Your task to perform on an android device: turn pop-ups off in chrome Image 0: 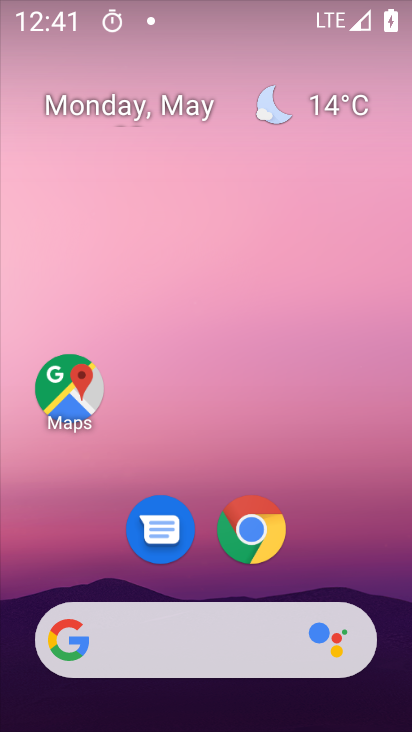
Step 0: drag from (384, 573) to (364, 258)
Your task to perform on an android device: turn pop-ups off in chrome Image 1: 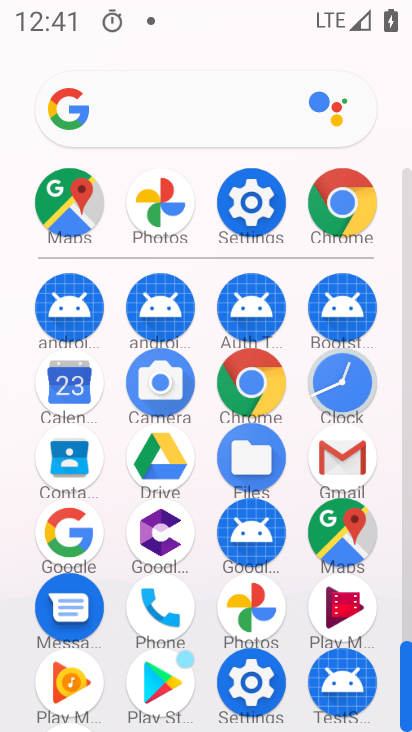
Step 1: click (260, 398)
Your task to perform on an android device: turn pop-ups off in chrome Image 2: 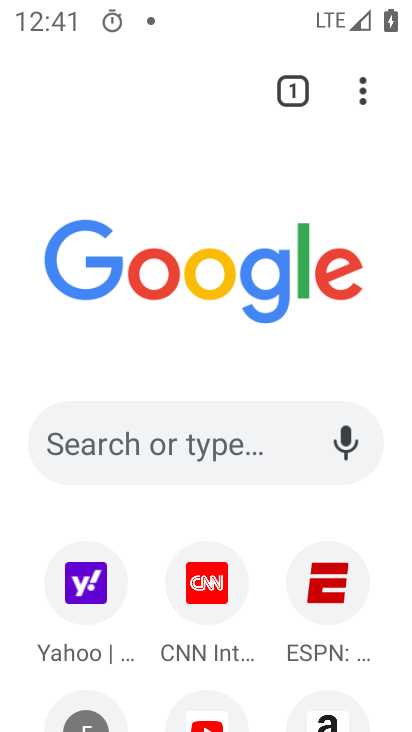
Step 2: click (365, 102)
Your task to perform on an android device: turn pop-ups off in chrome Image 3: 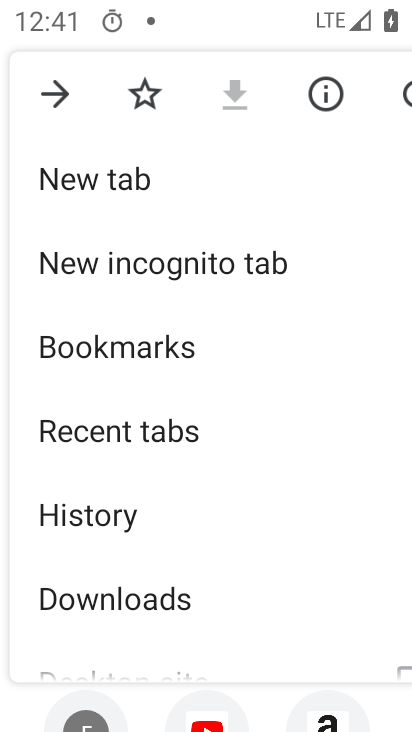
Step 3: drag from (271, 671) to (259, 516)
Your task to perform on an android device: turn pop-ups off in chrome Image 4: 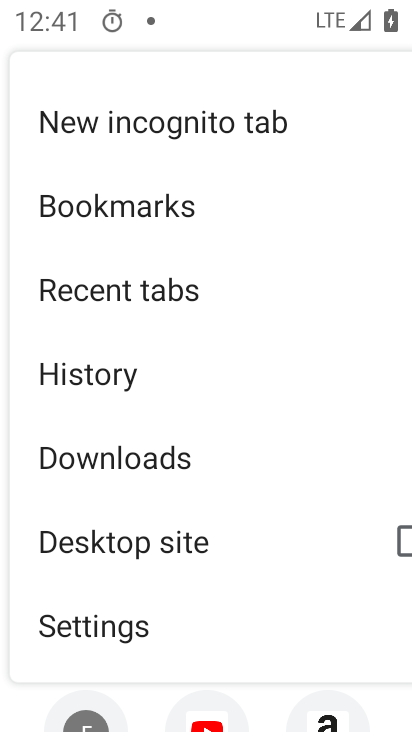
Step 4: drag from (260, 661) to (264, 539)
Your task to perform on an android device: turn pop-ups off in chrome Image 5: 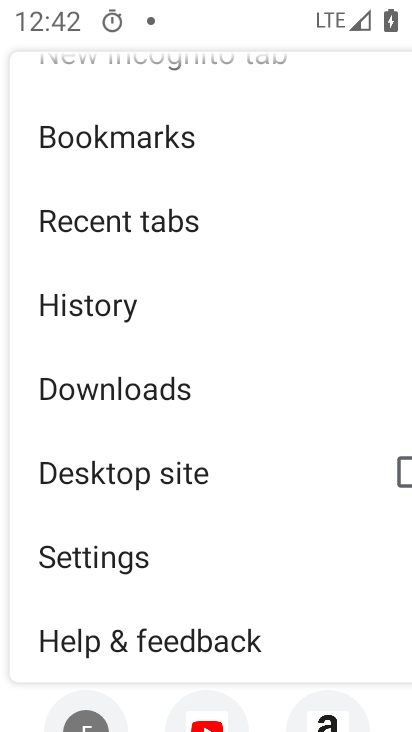
Step 5: click (128, 587)
Your task to perform on an android device: turn pop-ups off in chrome Image 6: 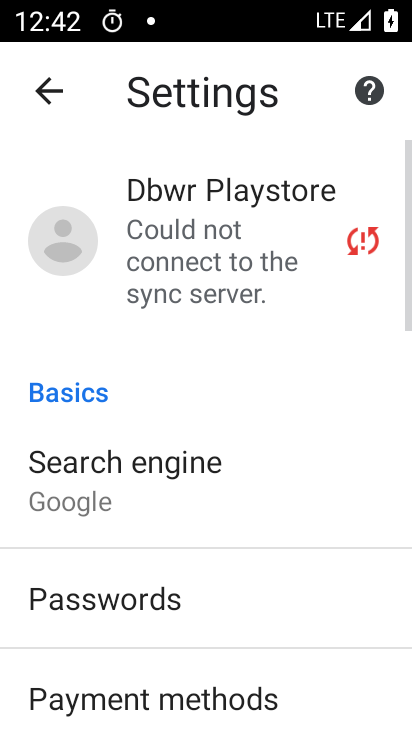
Step 6: drag from (323, 607) to (322, 532)
Your task to perform on an android device: turn pop-ups off in chrome Image 7: 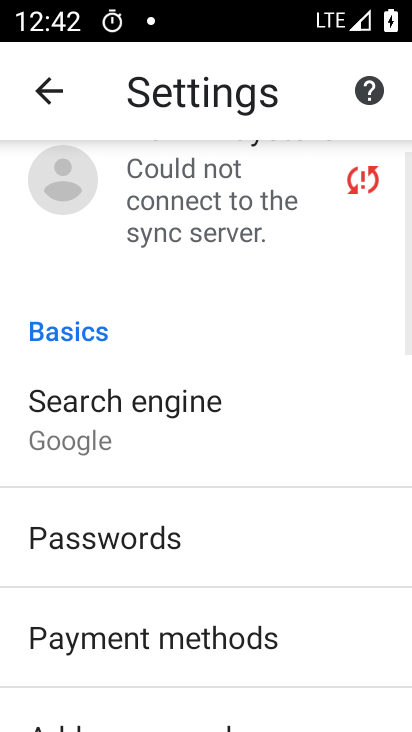
Step 7: drag from (330, 625) to (332, 545)
Your task to perform on an android device: turn pop-ups off in chrome Image 8: 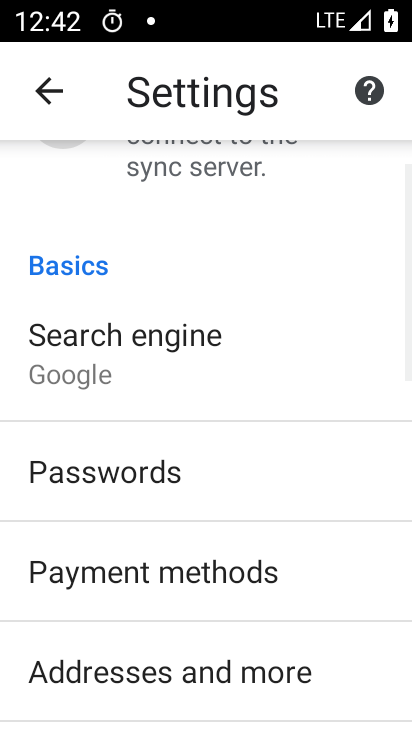
Step 8: drag from (339, 655) to (334, 566)
Your task to perform on an android device: turn pop-ups off in chrome Image 9: 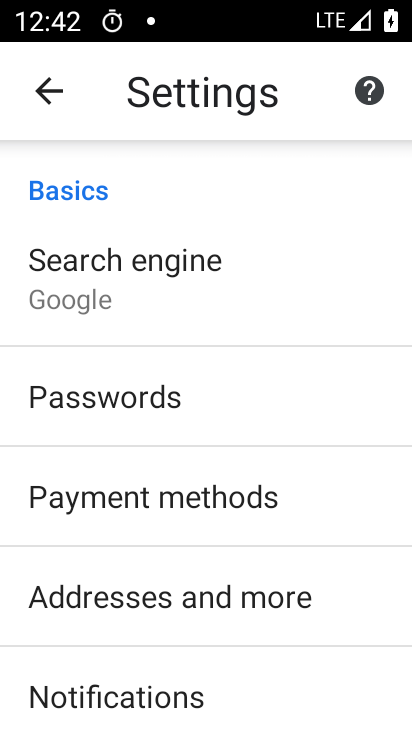
Step 9: drag from (330, 676) to (337, 594)
Your task to perform on an android device: turn pop-ups off in chrome Image 10: 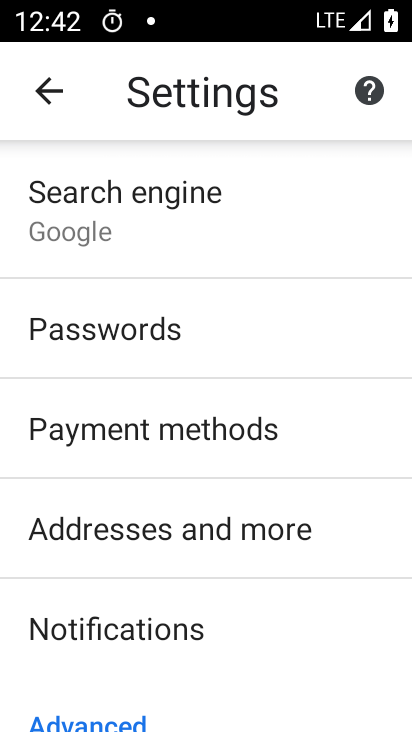
Step 10: drag from (336, 685) to (331, 605)
Your task to perform on an android device: turn pop-ups off in chrome Image 11: 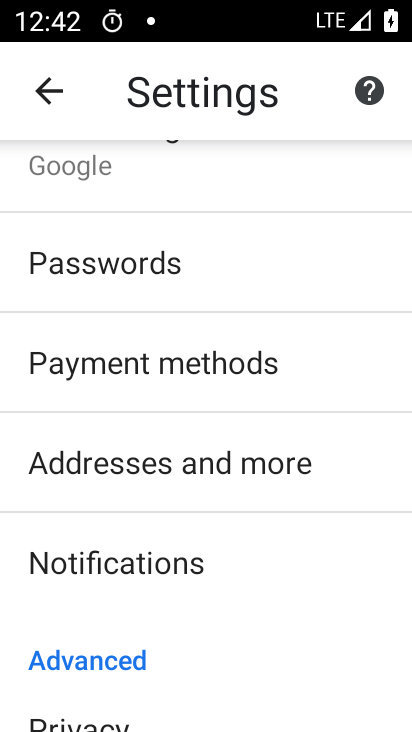
Step 11: drag from (334, 694) to (330, 629)
Your task to perform on an android device: turn pop-ups off in chrome Image 12: 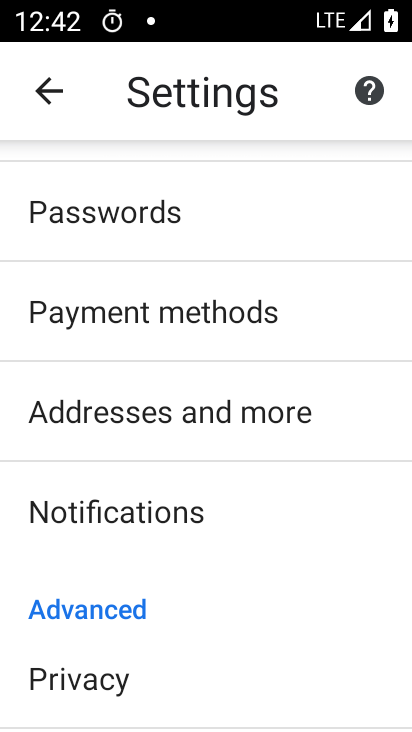
Step 12: drag from (323, 681) to (322, 605)
Your task to perform on an android device: turn pop-ups off in chrome Image 13: 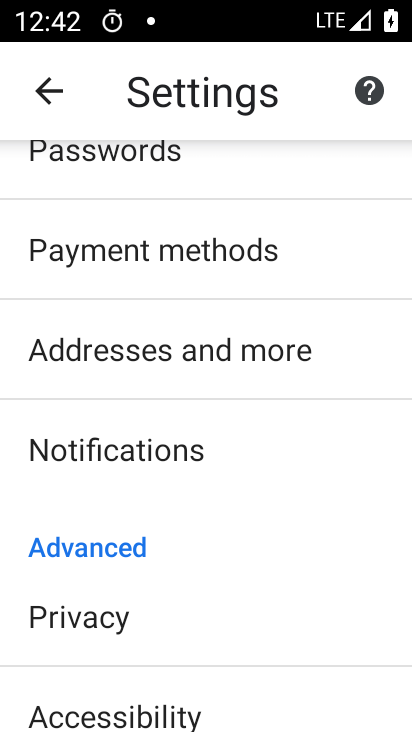
Step 13: drag from (329, 641) to (329, 568)
Your task to perform on an android device: turn pop-ups off in chrome Image 14: 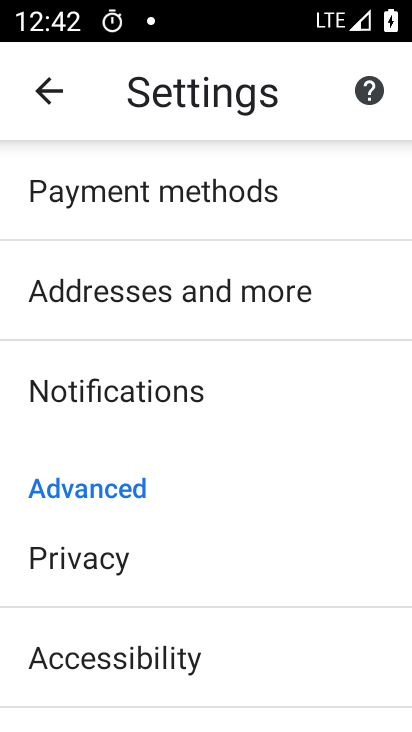
Step 14: drag from (327, 622) to (314, 557)
Your task to perform on an android device: turn pop-ups off in chrome Image 15: 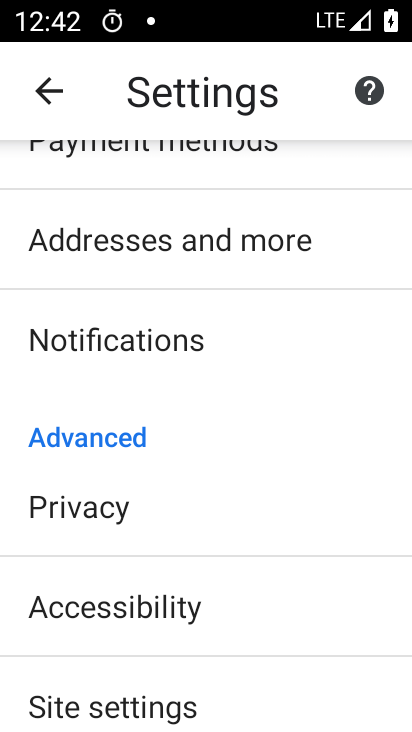
Step 15: drag from (321, 619) to (315, 574)
Your task to perform on an android device: turn pop-ups off in chrome Image 16: 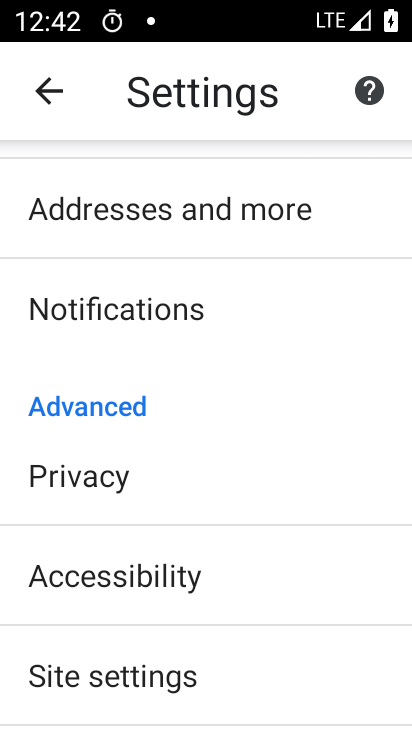
Step 16: drag from (325, 649) to (318, 579)
Your task to perform on an android device: turn pop-ups off in chrome Image 17: 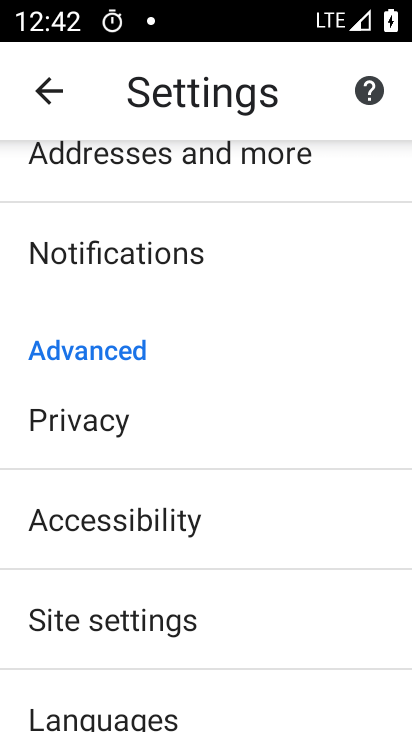
Step 17: drag from (326, 629) to (311, 566)
Your task to perform on an android device: turn pop-ups off in chrome Image 18: 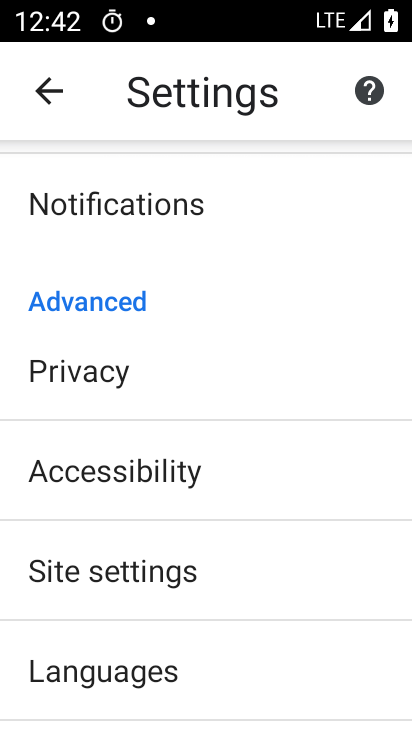
Step 18: drag from (312, 616) to (306, 565)
Your task to perform on an android device: turn pop-ups off in chrome Image 19: 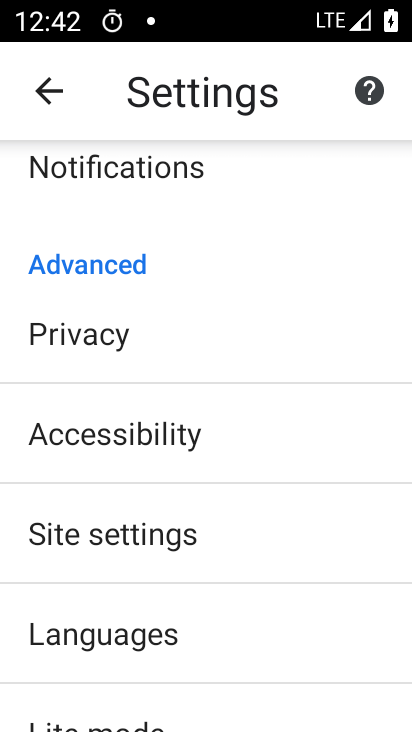
Step 19: drag from (301, 621) to (294, 514)
Your task to perform on an android device: turn pop-ups off in chrome Image 20: 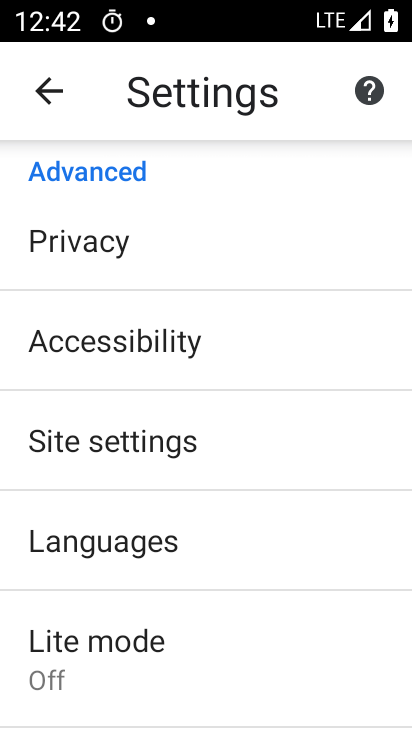
Step 20: click (238, 451)
Your task to perform on an android device: turn pop-ups off in chrome Image 21: 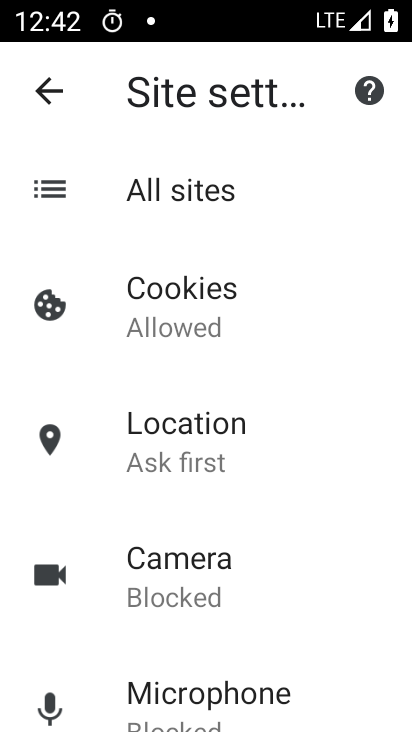
Step 21: drag from (296, 449) to (316, 541)
Your task to perform on an android device: turn pop-ups off in chrome Image 22: 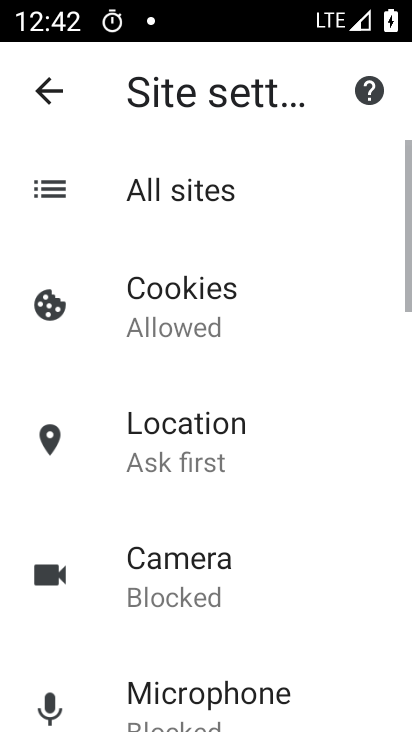
Step 22: drag from (324, 581) to (322, 505)
Your task to perform on an android device: turn pop-ups off in chrome Image 23: 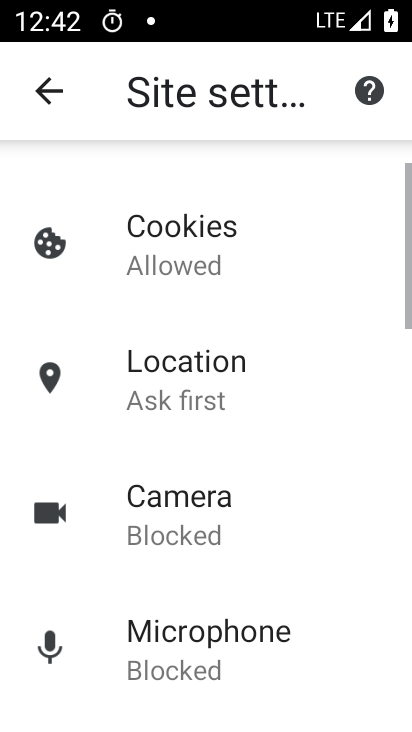
Step 23: drag from (341, 572) to (335, 531)
Your task to perform on an android device: turn pop-ups off in chrome Image 24: 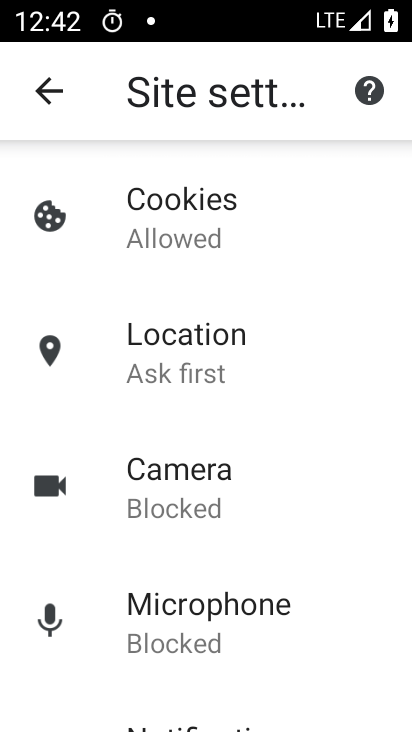
Step 24: drag from (325, 592) to (324, 533)
Your task to perform on an android device: turn pop-ups off in chrome Image 25: 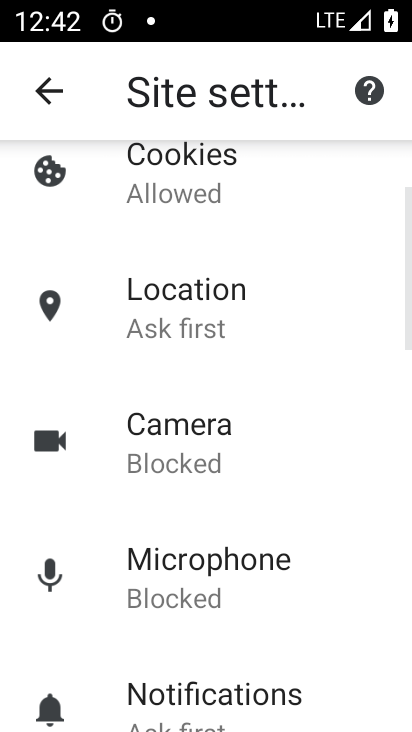
Step 25: drag from (325, 549) to (325, 508)
Your task to perform on an android device: turn pop-ups off in chrome Image 26: 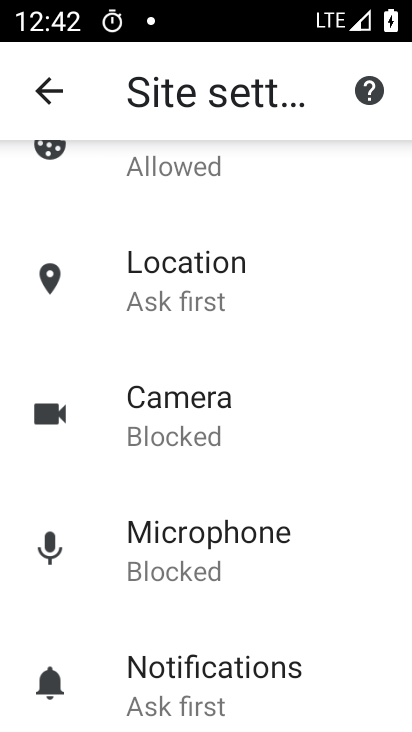
Step 26: drag from (364, 618) to (360, 536)
Your task to perform on an android device: turn pop-ups off in chrome Image 27: 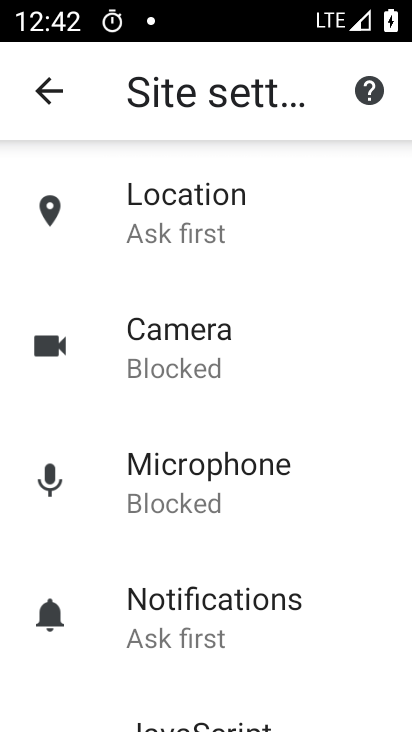
Step 27: drag from (377, 638) to (370, 565)
Your task to perform on an android device: turn pop-ups off in chrome Image 28: 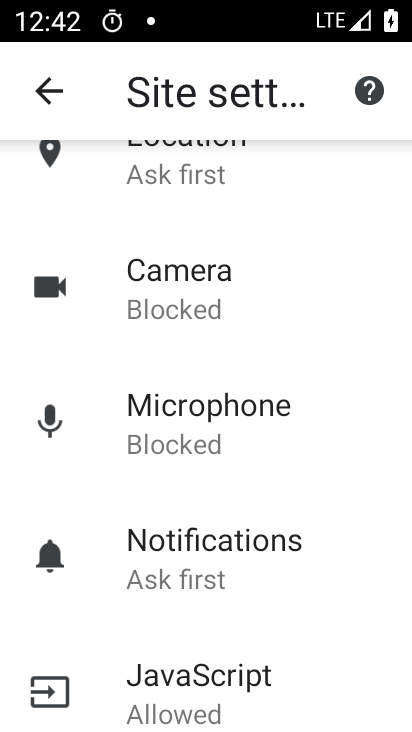
Step 28: drag from (360, 609) to (352, 546)
Your task to perform on an android device: turn pop-ups off in chrome Image 29: 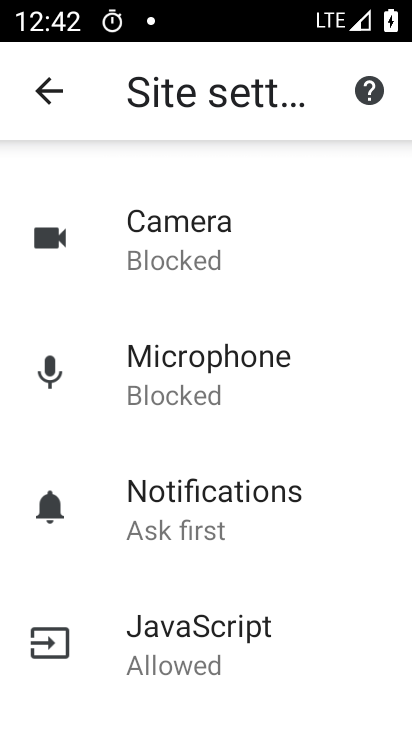
Step 29: drag from (351, 588) to (345, 536)
Your task to perform on an android device: turn pop-ups off in chrome Image 30: 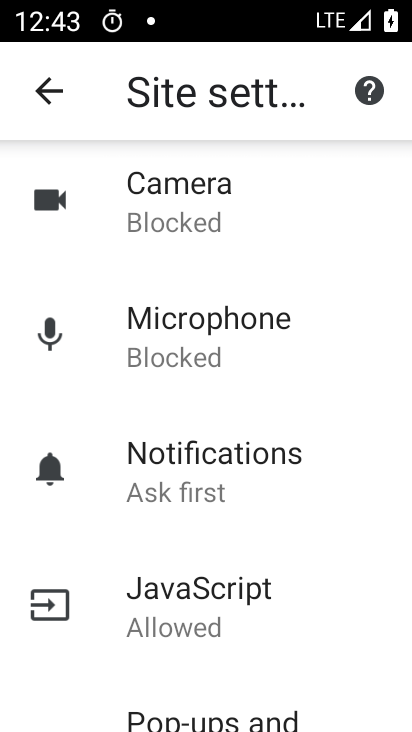
Step 30: drag from (339, 591) to (336, 531)
Your task to perform on an android device: turn pop-ups off in chrome Image 31: 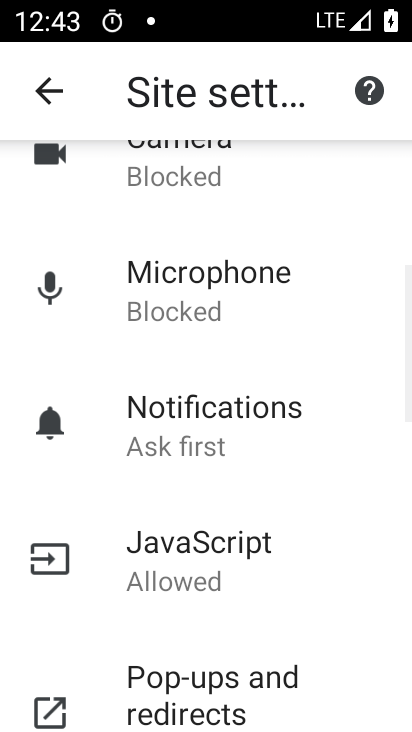
Step 31: drag from (338, 577) to (338, 526)
Your task to perform on an android device: turn pop-ups off in chrome Image 32: 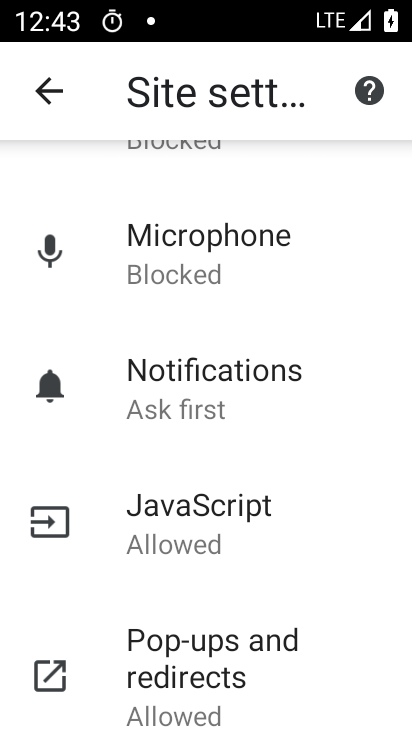
Step 32: drag from (347, 573) to (349, 519)
Your task to perform on an android device: turn pop-ups off in chrome Image 33: 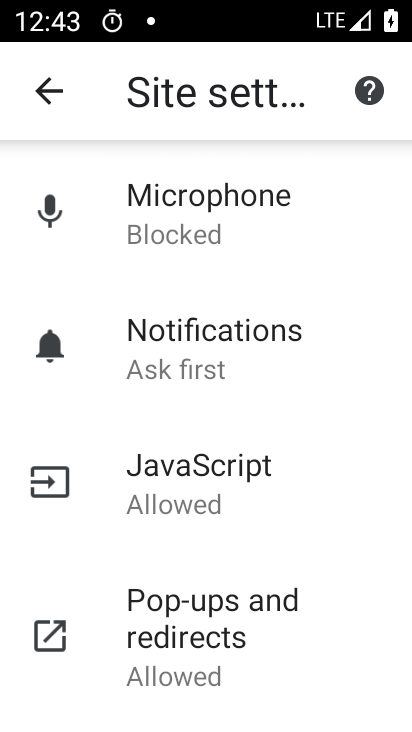
Step 33: drag from (349, 586) to (348, 506)
Your task to perform on an android device: turn pop-ups off in chrome Image 34: 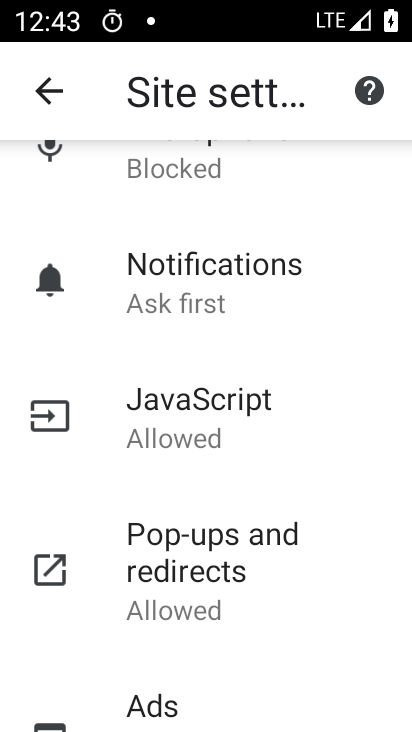
Step 34: drag from (352, 610) to (353, 521)
Your task to perform on an android device: turn pop-ups off in chrome Image 35: 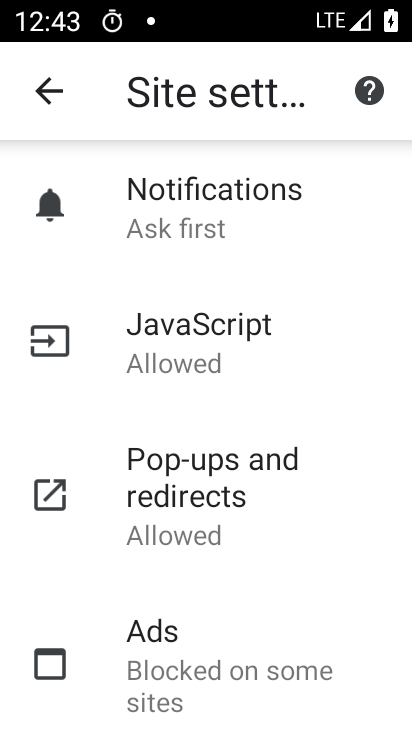
Step 35: drag from (349, 601) to (339, 518)
Your task to perform on an android device: turn pop-ups off in chrome Image 36: 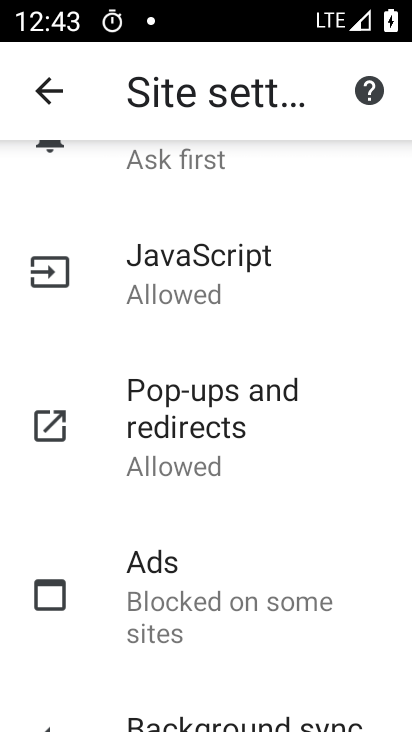
Step 36: drag from (348, 617) to (346, 528)
Your task to perform on an android device: turn pop-ups off in chrome Image 37: 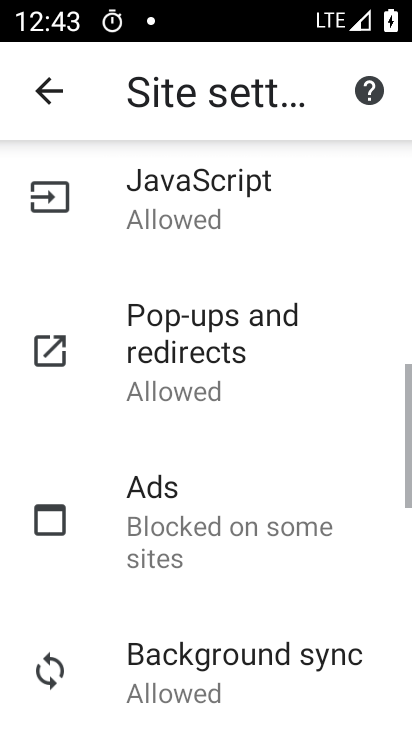
Step 37: drag from (364, 629) to (362, 557)
Your task to perform on an android device: turn pop-ups off in chrome Image 38: 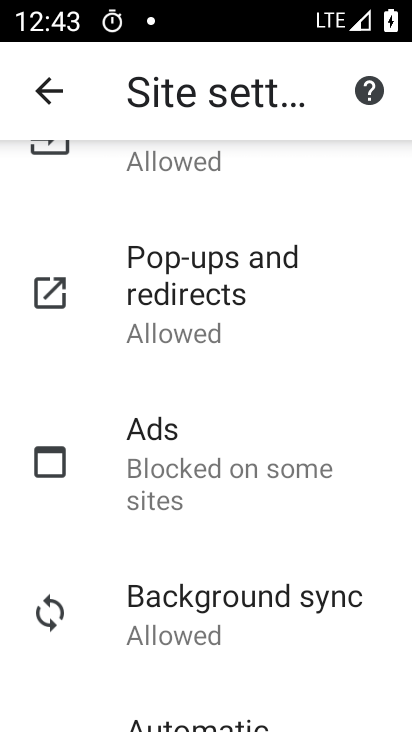
Step 38: drag from (363, 593) to (364, 531)
Your task to perform on an android device: turn pop-ups off in chrome Image 39: 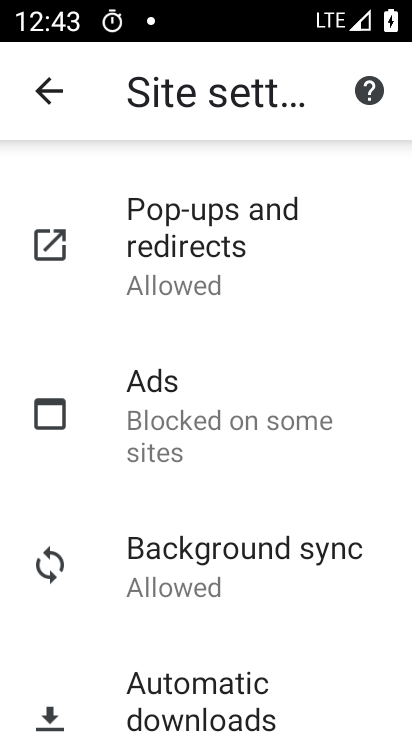
Step 39: click (231, 236)
Your task to perform on an android device: turn pop-ups off in chrome Image 40: 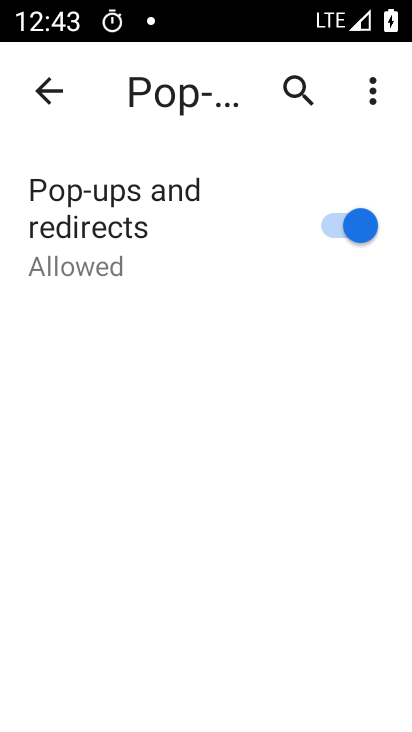
Step 40: click (360, 224)
Your task to perform on an android device: turn pop-ups off in chrome Image 41: 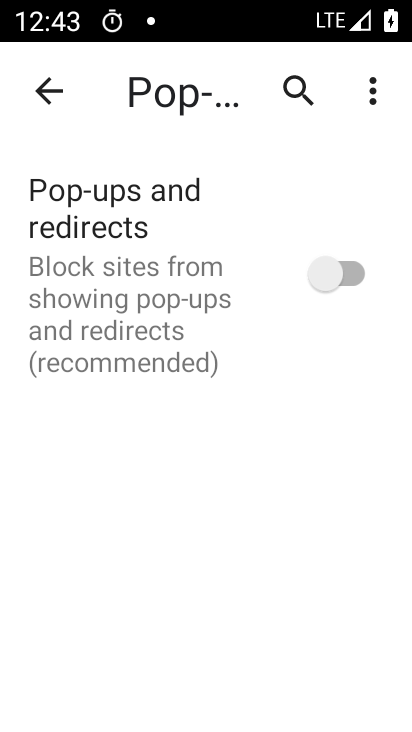
Step 41: task complete